Your task to perform on an android device: move an email to a new category in the gmail app Image 0: 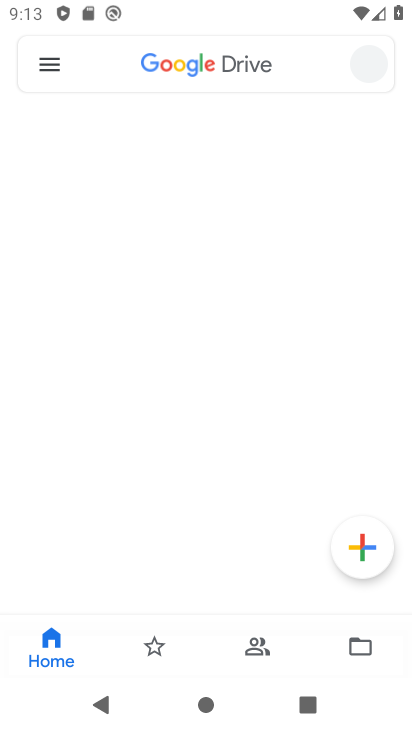
Step 0: click (54, 632)
Your task to perform on an android device: move an email to a new category in the gmail app Image 1: 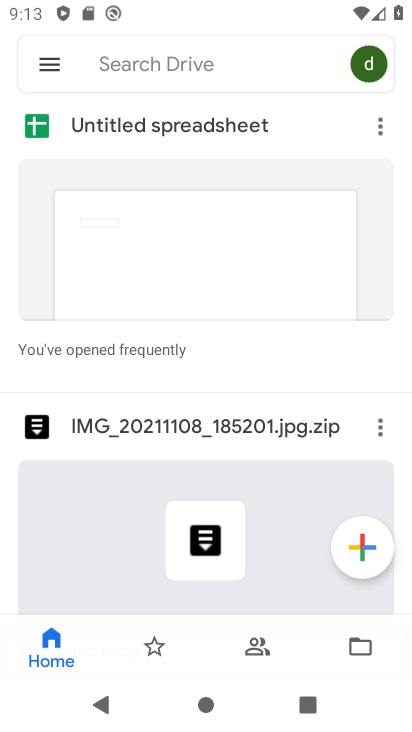
Step 1: press back button
Your task to perform on an android device: move an email to a new category in the gmail app Image 2: 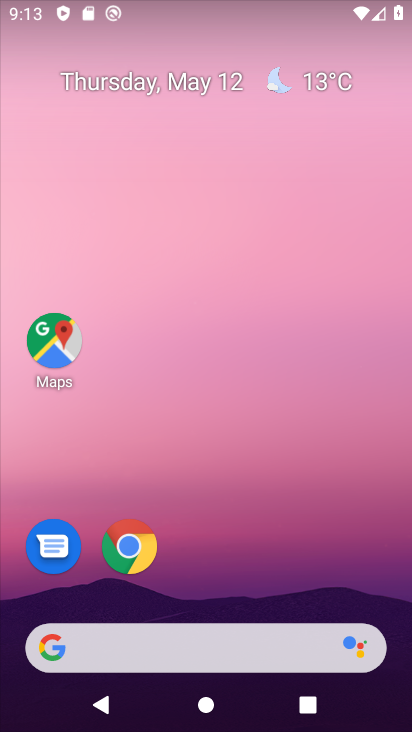
Step 2: drag from (215, 604) to (337, 78)
Your task to perform on an android device: move an email to a new category in the gmail app Image 3: 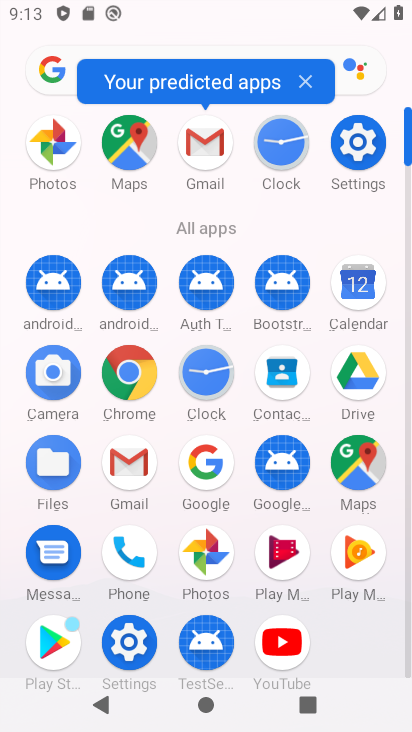
Step 3: click (124, 471)
Your task to perform on an android device: move an email to a new category in the gmail app Image 4: 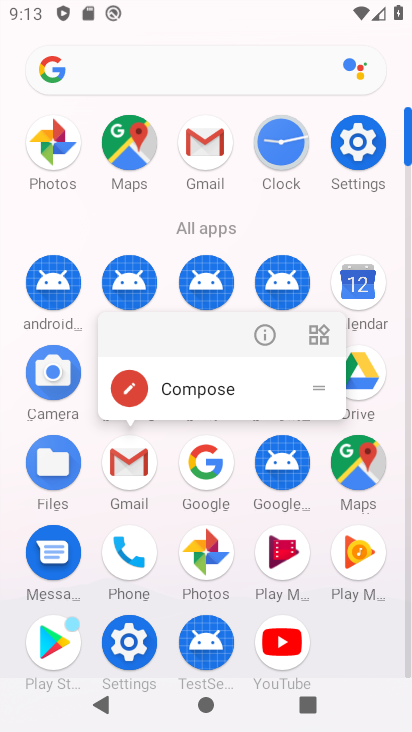
Step 4: click (132, 474)
Your task to perform on an android device: move an email to a new category in the gmail app Image 5: 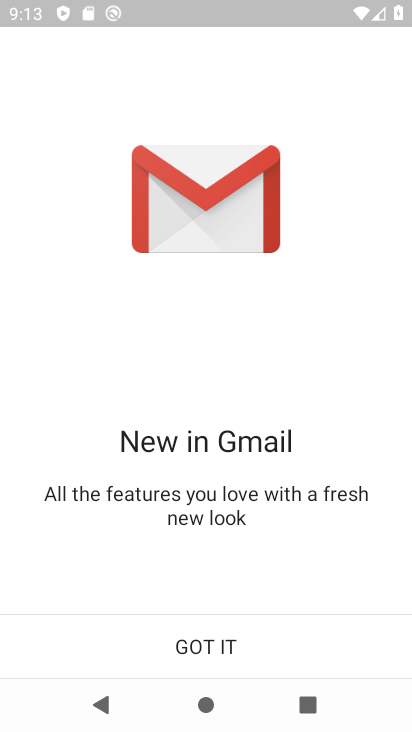
Step 5: click (180, 664)
Your task to perform on an android device: move an email to a new category in the gmail app Image 6: 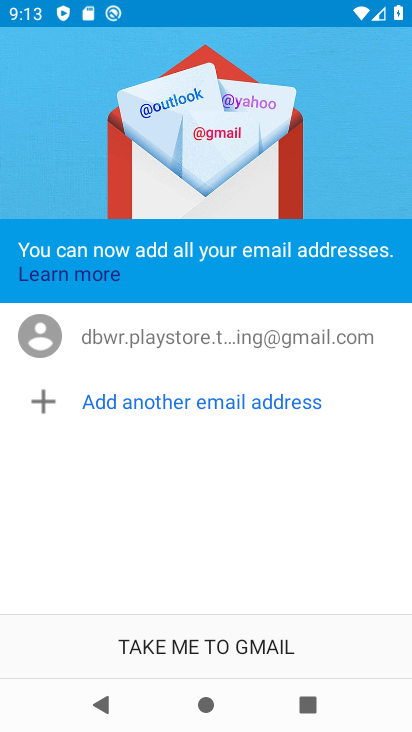
Step 6: click (248, 664)
Your task to perform on an android device: move an email to a new category in the gmail app Image 7: 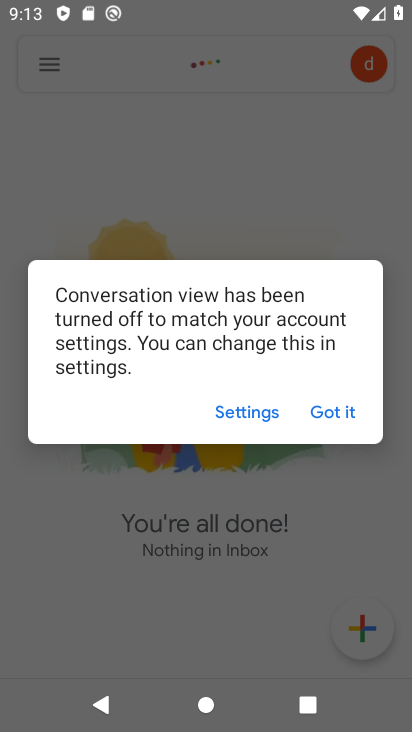
Step 7: click (326, 401)
Your task to perform on an android device: move an email to a new category in the gmail app Image 8: 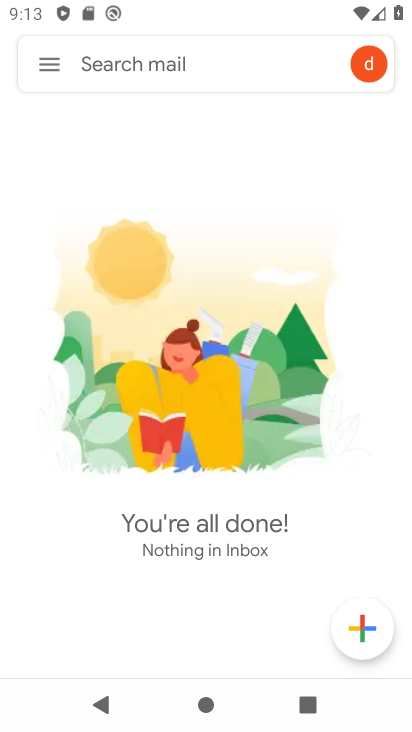
Step 8: click (34, 66)
Your task to perform on an android device: move an email to a new category in the gmail app Image 9: 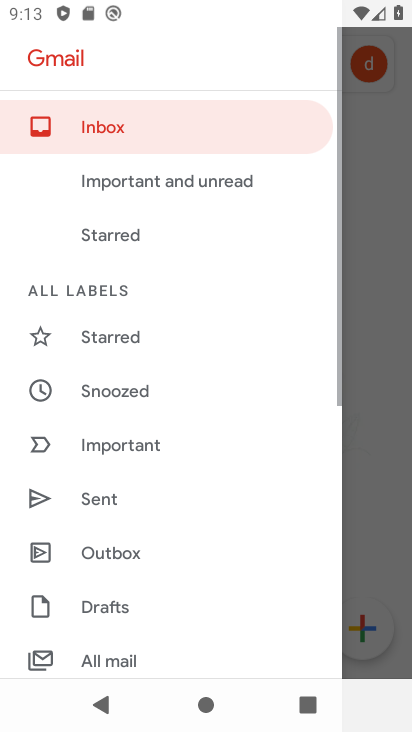
Step 9: drag from (129, 584) to (231, 305)
Your task to perform on an android device: move an email to a new category in the gmail app Image 10: 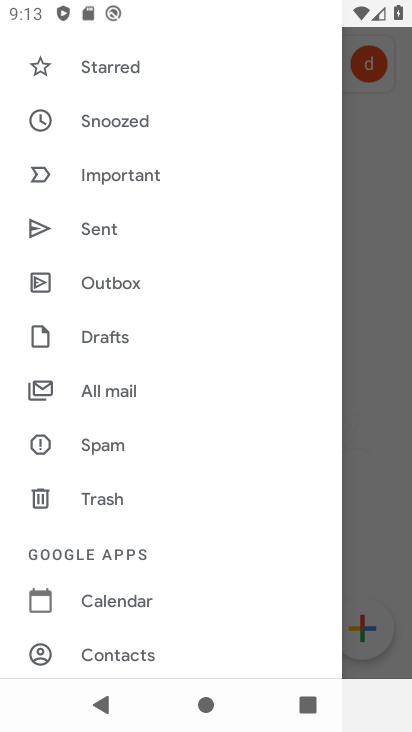
Step 10: click (166, 409)
Your task to perform on an android device: move an email to a new category in the gmail app Image 11: 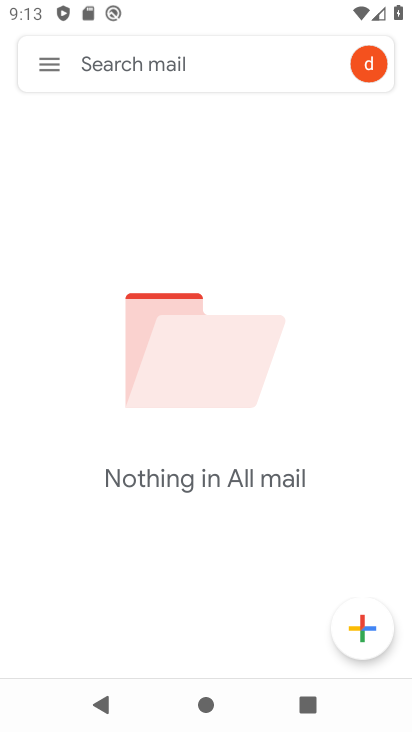
Step 11: task complete